Your task to perform on an android device: turn off javascript in the chrome app Image 0: 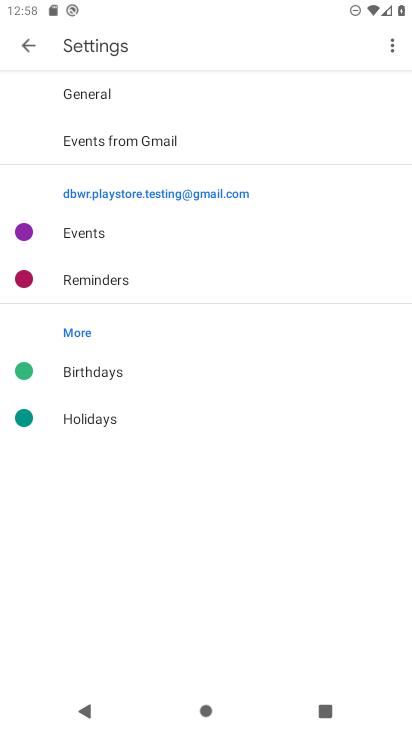
Step 0: press home button
Your task to perform on an android device: turn off javascript in the chrome app Image 1: 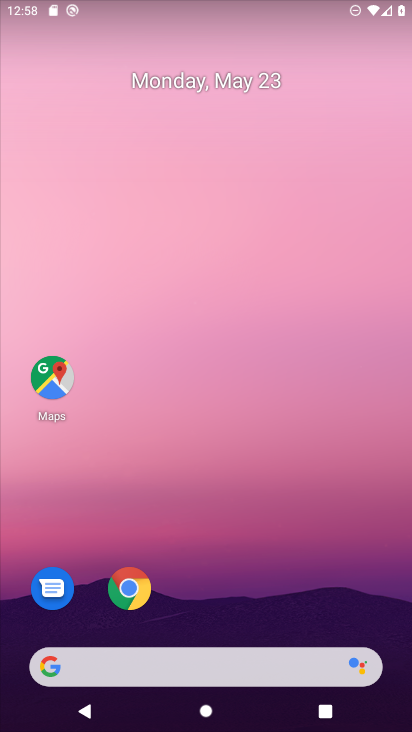
Step 1: click (128, 588)
Your task to perform on an android device: turn off javascript in the chrome app Image 2: 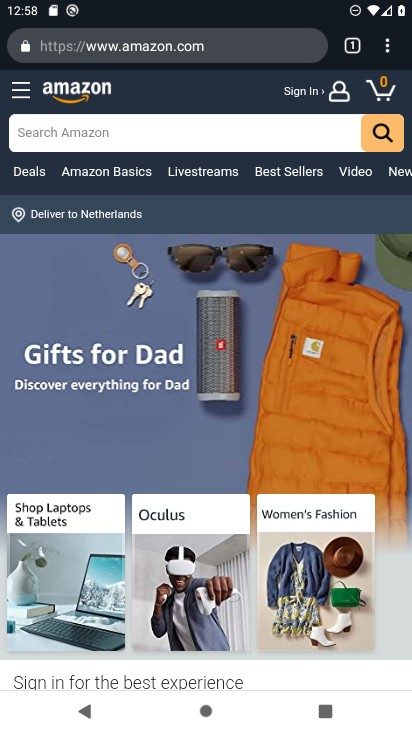
Step 2: click (387, 48)
Your task to perform on an android device: turn off javascript in the chrome app Image 3: 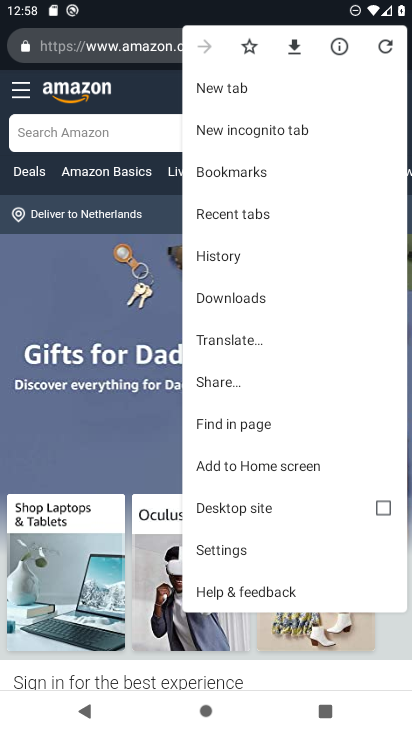
Step 3: click (235, 540)
Your task to perform on an android device: turn off javascript in the chrome app Image 4: 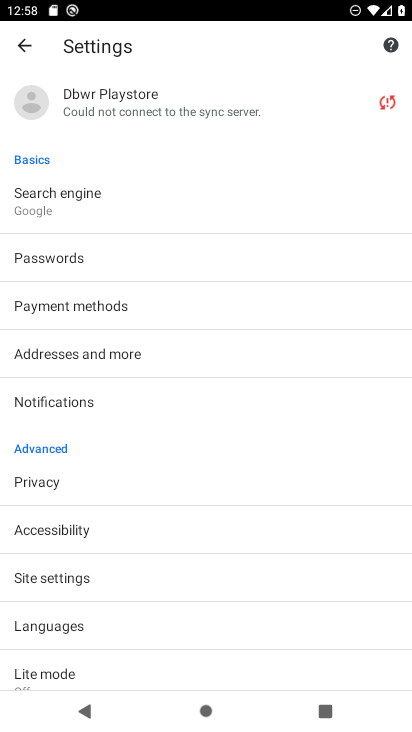
Step 4: click (56, 673)
Your task to perform on an android device: turn off javascript in the chrome app Image 5: 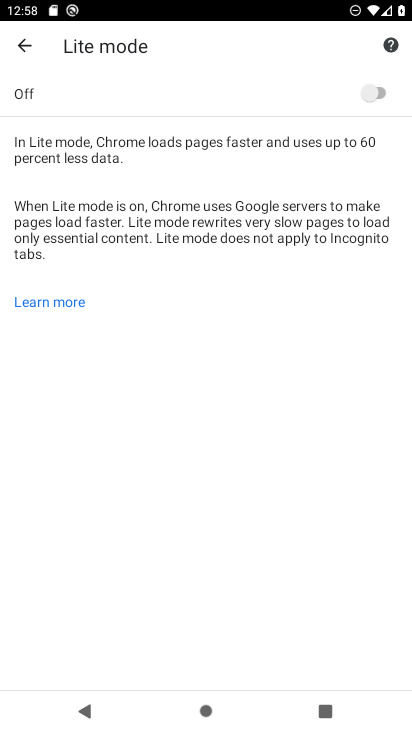
Step 5: press back button
Your task to perform on an android device: turn off javascript in the chrome app Image 6: 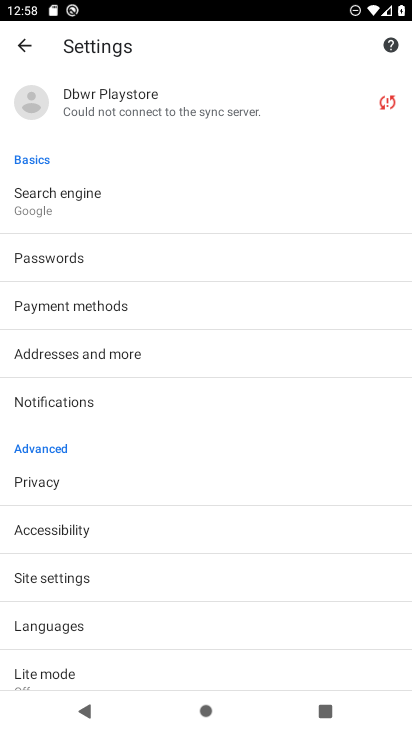
Step 6: click (93, 573)
Your task to perform on an android device: turn off javascript in the chrome app Image 7: 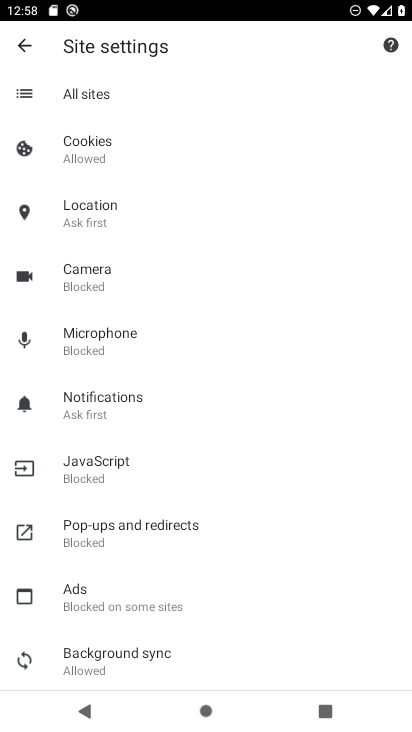
Step 7: click (80, 578)
Your task to perform on an android device: turn off javascript in the chrome app Image 8: 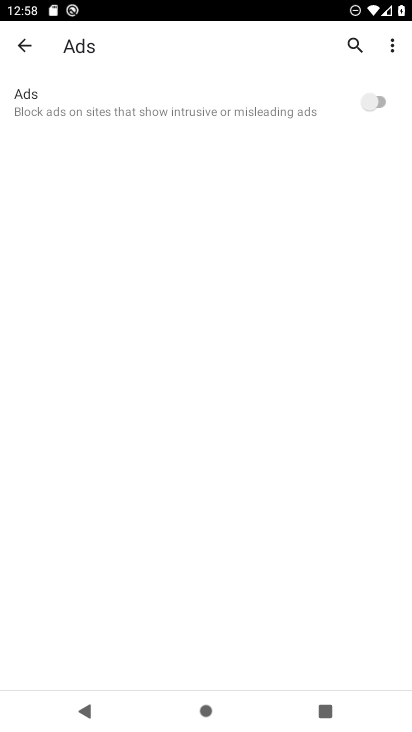
Step 8: click (25, 44)
Your task to perform on an android device: turn off javascript in the chrome app Image 9: 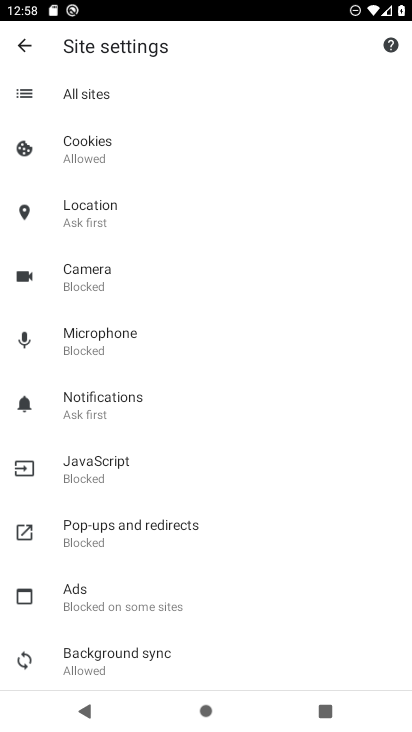
Step 9: click (111, 466)
Your task to perform on an android device: turn off javascript in the chrome app Image 10: 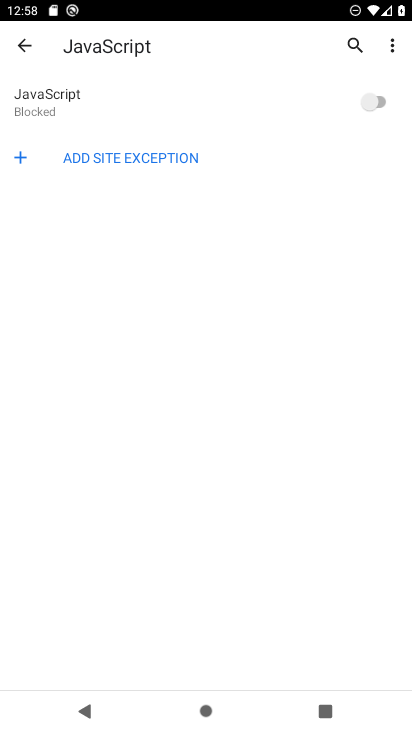
Step 10: task complete